Your task to perform on an android device: turn off translation in the chrome app Image 0: 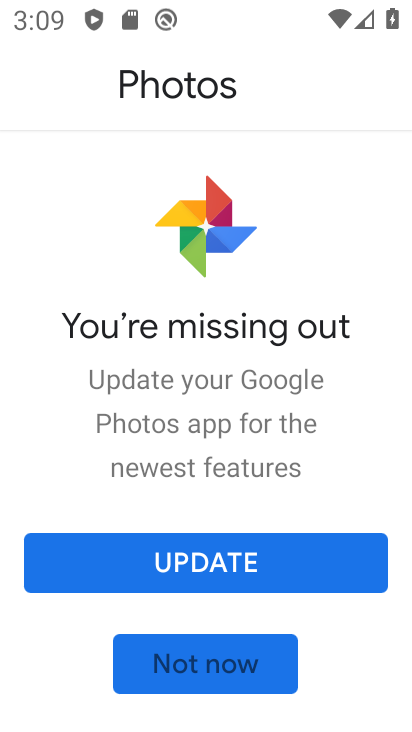
Step 0: click (186, 662)
Your task to perform on an android device: turn off translation in the chrome app Image 1: 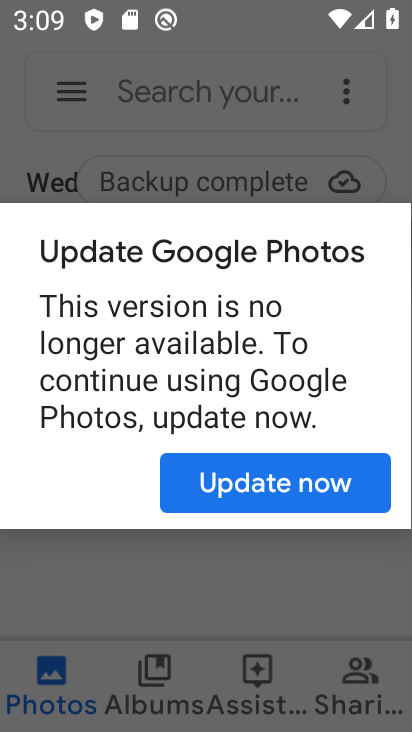
Step 1: press home button
Your task to perform on an android device: turn off translation in the chrome app Image 2: 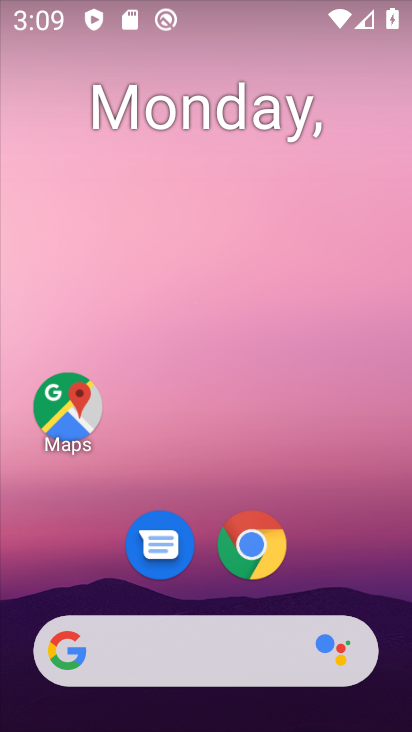
Step 2: click (261, 558)
Your task to perform on an android device: turn off translation in the chrome app Image 3: 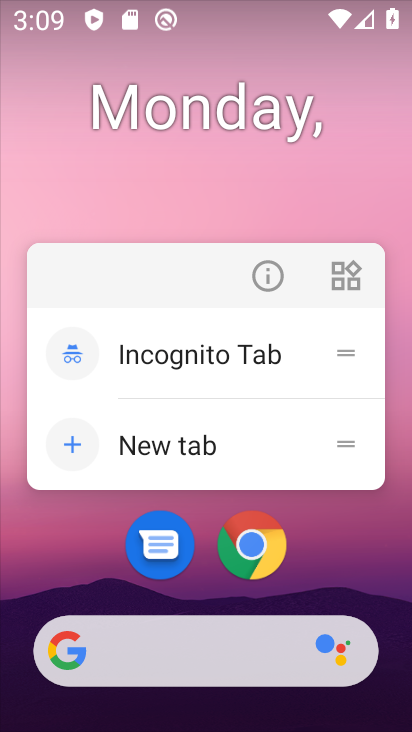
Step 3: click (248, 543)
Your task to perform on an android device: turn off translation in the chrome app Image 4: 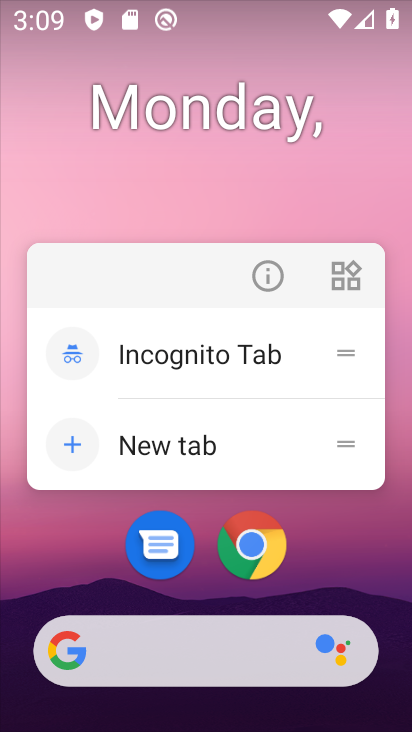
Step 4: click (248, 543)
Your task to perform on an android device: turn off translation in the chrome app Image 5: 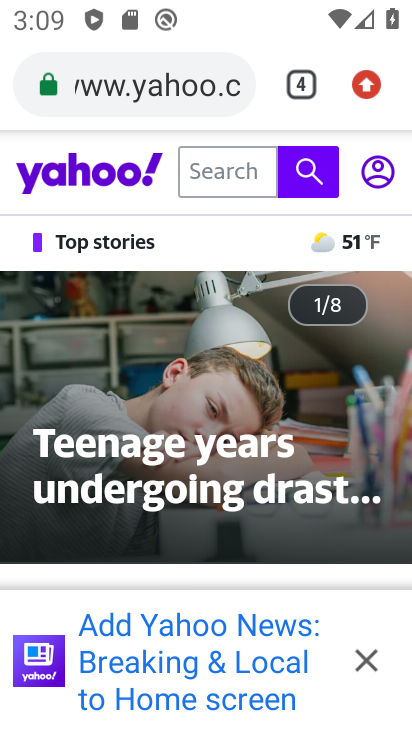
Step 5: click (369, 73)
Your task to perform on an android device: turn off translation in the chrome app Image 6: 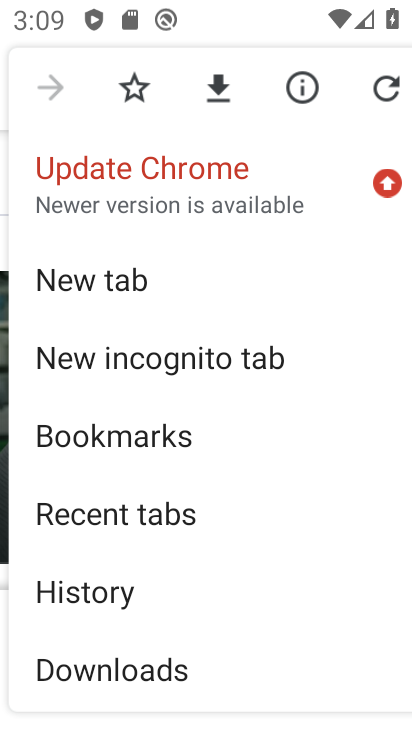
Step 6: drag from (103, 646) to (188, 142)
Your task to perform on an android device: turn off translation in the chrome app Image 7: 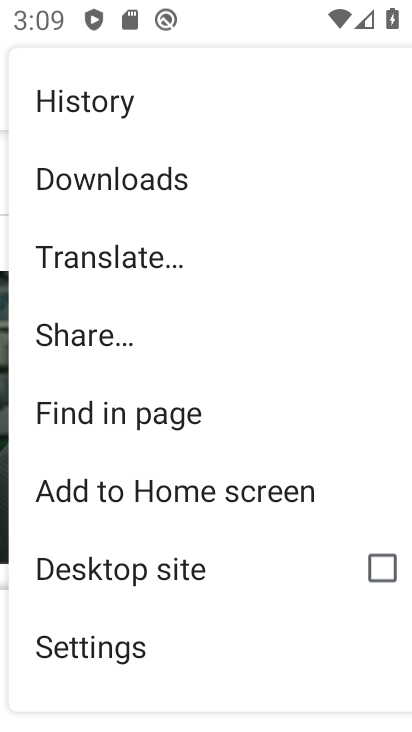
Step 7: click (87, 655)
Your task to perform on an android device: turn off translation in the chrome app Image 8: 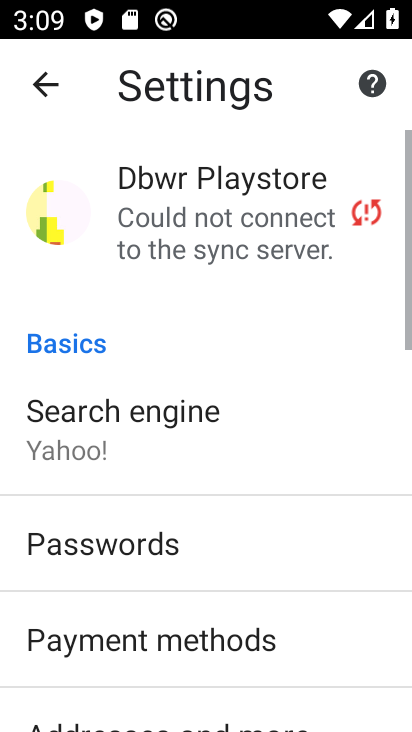
Step 8: drag from (109, 637) to (237, 47)
Your task to perform on an android device: turn off translation in the chrome app Image 9: 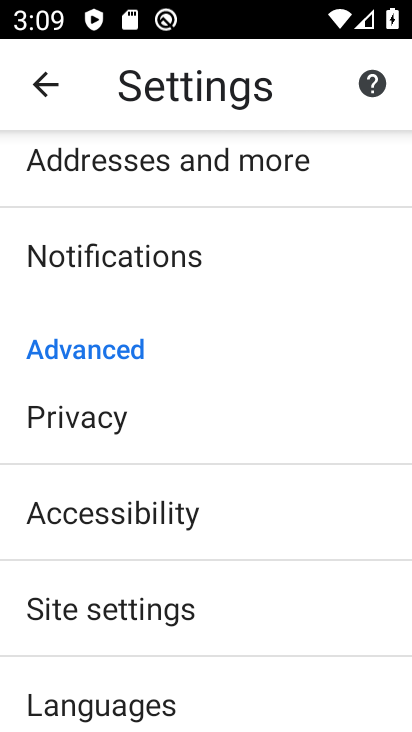
Step 9: click (129, 684)
Your task to perform on an android device: turn off translation in the chrome app Image 10: 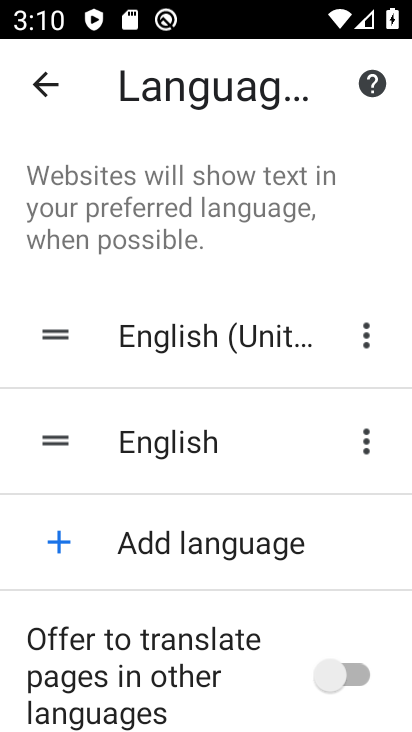
Step 10: task complete